Your task to perform on an android device: toggle wifi Image 0: 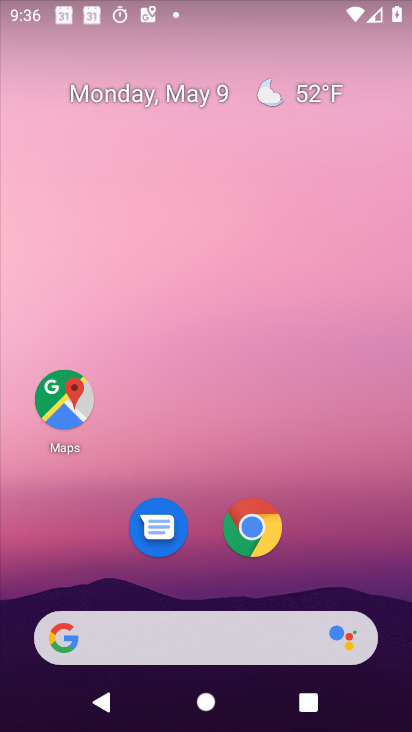
Step 0: click (240, 394)
Your task to perform on an android device: toggle wifi Image 1: 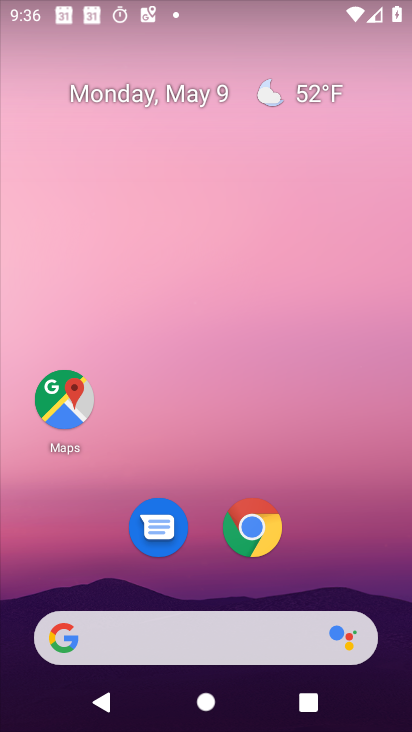
Step 1: drag from (361, 543) to (350, 51)
Your task to perform on an android device: toggle wifi Image 2: 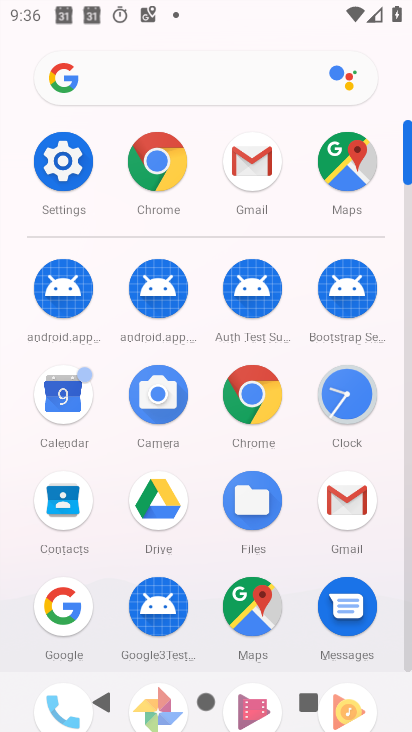
Step 2: click (57, 174)
Your task to perform on an android device: toggle wifi Image 3: 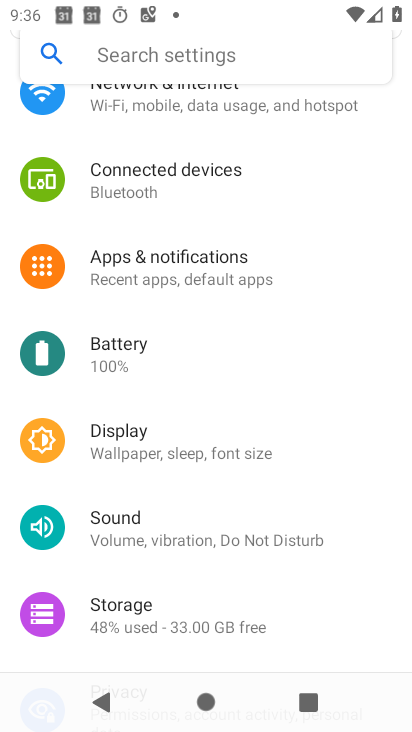
Step 3: drag from (236, 163) to (239, 616)
Your task to perform on an android device: toggle wifi Image 4: 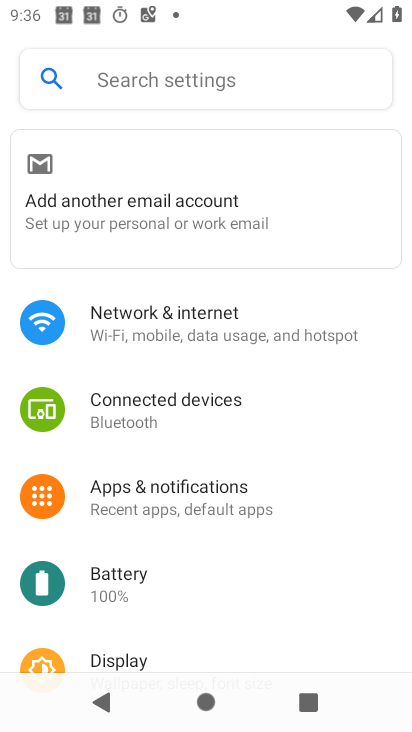
Step 4: click (317, 321)
Your task to perform on an android device: toggle wifi Image 5: 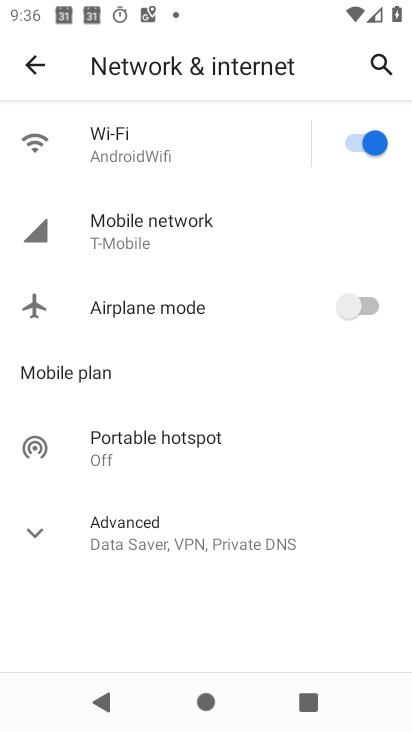
Step 5: click (353, 144)
Your task to perform on an android device: toggle wifi Image 6: 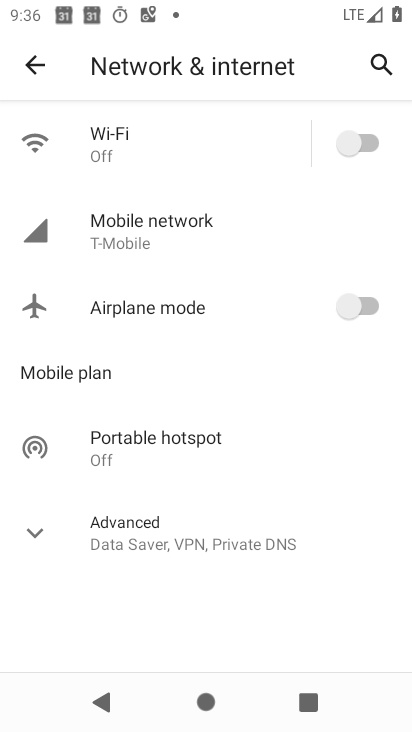
Step 6: task complete